Your task to perform on an android device: Open Yahoo.com Image 0: 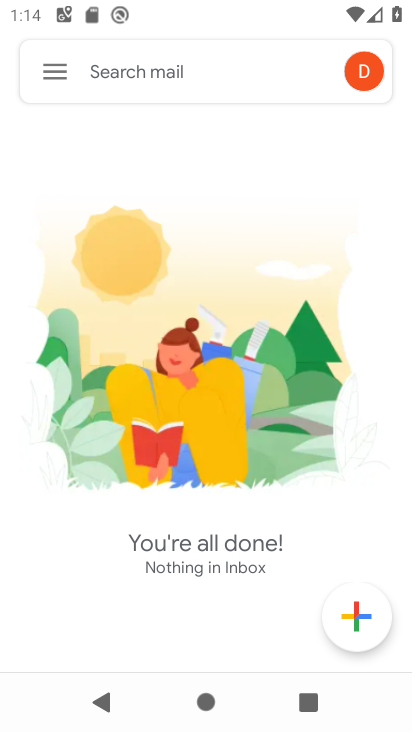
Step 0: press home button
Your task to perform on an android device: Open Yahoo.com Image 1: 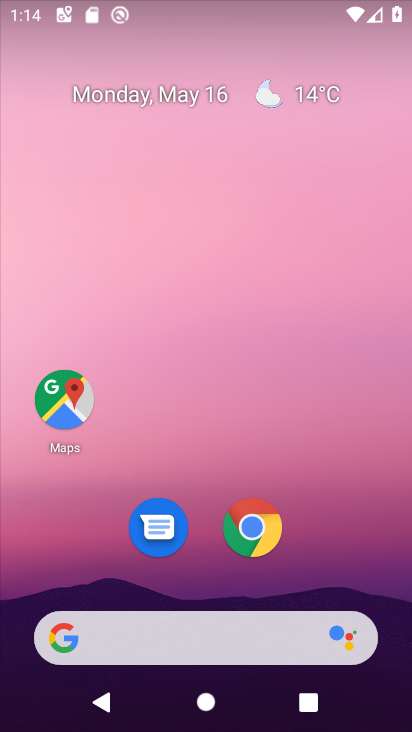
Step 1: click (257, 525)
Your task to perform on an android device: Open Yahoo.com Image 2: 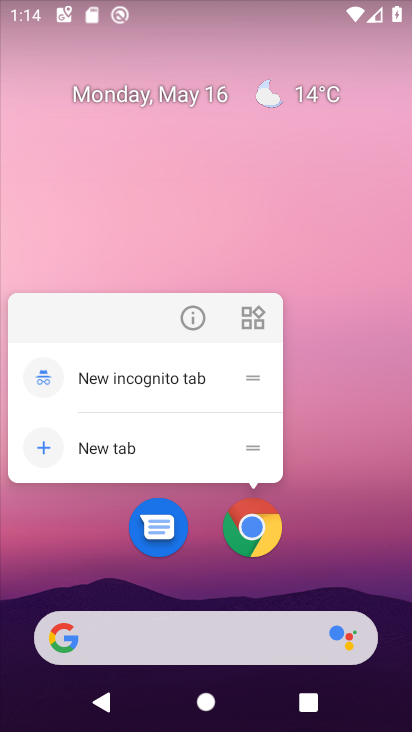
Step 2: click (267, 534)
Your task to perform on an android device: Open Yahoo.com Image 3: 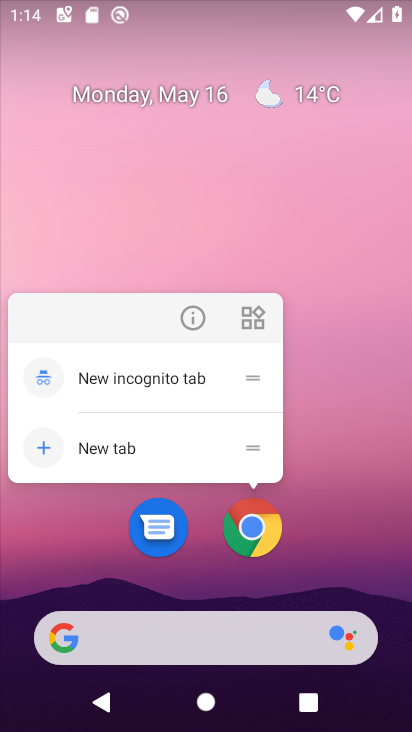
Step 3: click (271, 537)
Your task to perform on an android device: Open Yahoo.com Image 4: 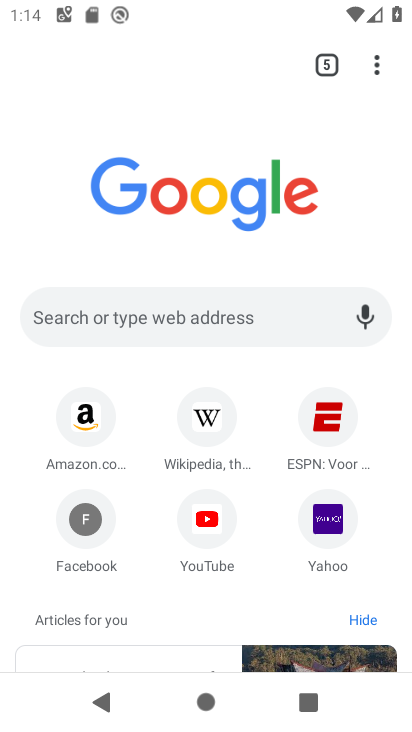
Step 4: click (318, 540)
Your task to perform on an android device: Open Yahoo.com Image 5: 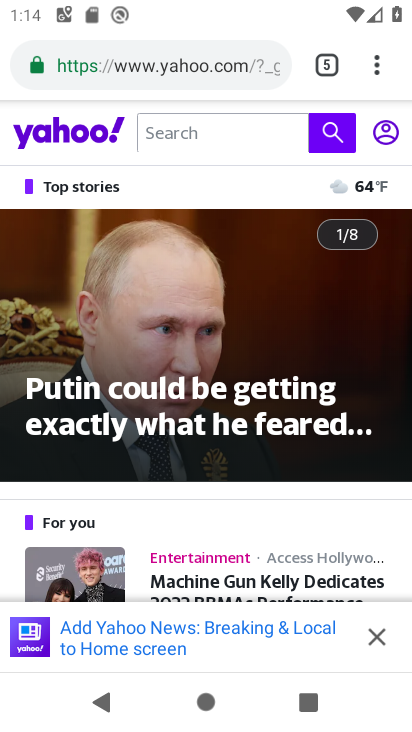
Step 5: task complete